Your task to perform on an android device: open app "Pandora - Music & Podcasts" Image 0: 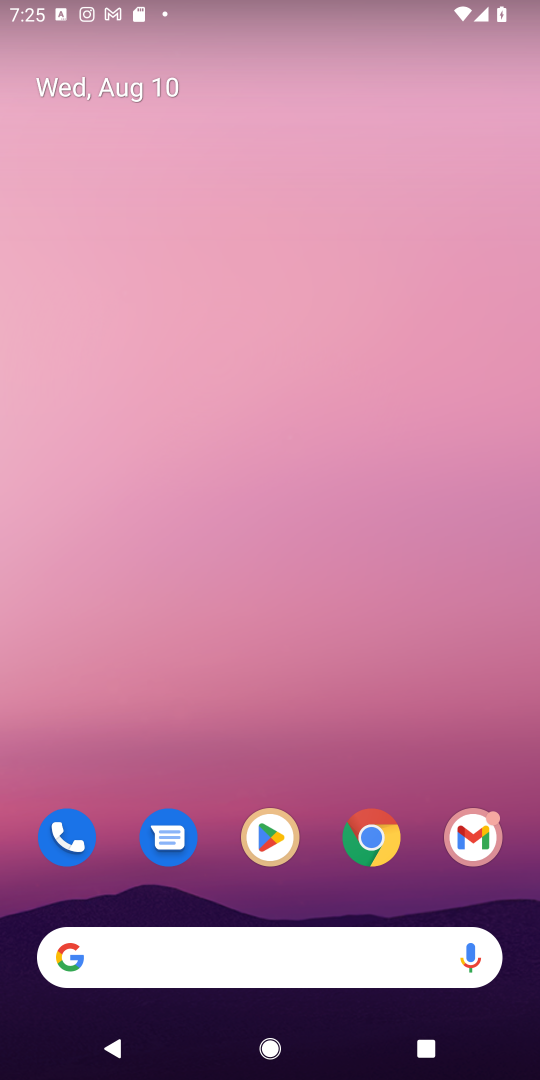
Step 0: click (265, 834)
Your task to perform on an android device: open app "Pandora - Music & Podcasts" Image 1: 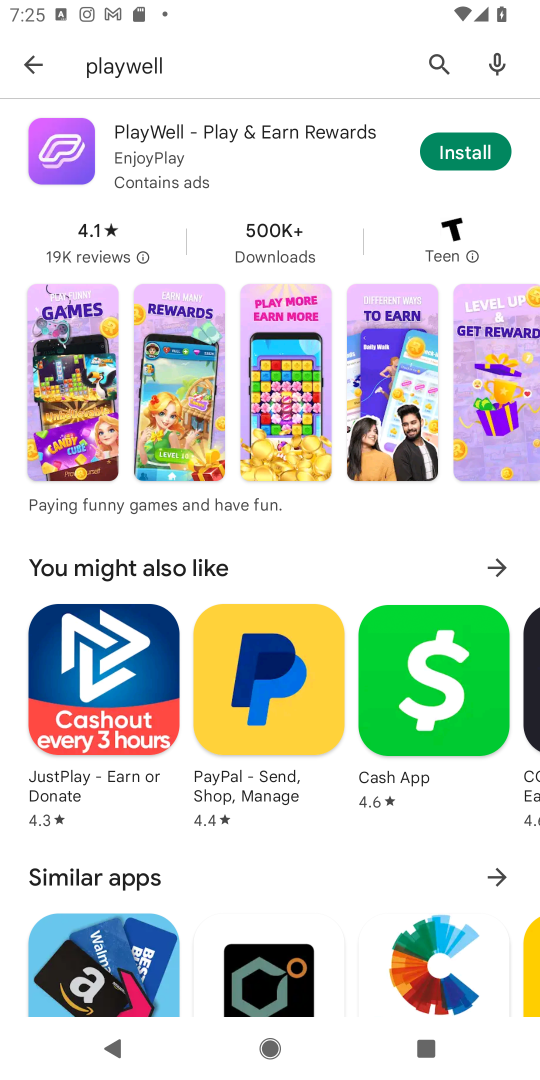
Step 1: click (432, 63)
Your task to perform on an android device: open app "Pandora - Music & Podcasts" Image 2: 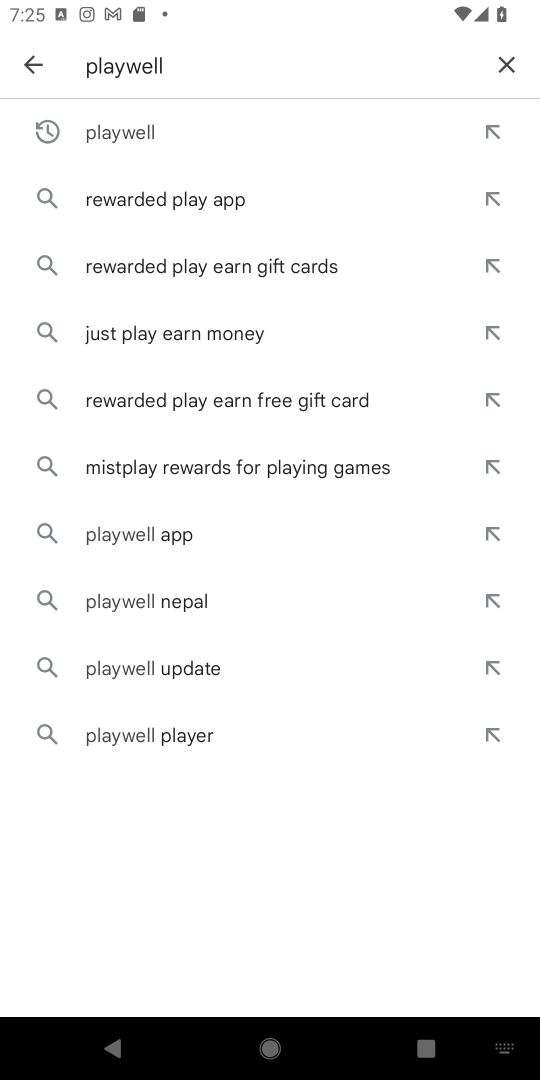
Step 2: click (505, 60)
Your task to perform on an android device: open app "Pandora - Music & Podcasts" Image 3: 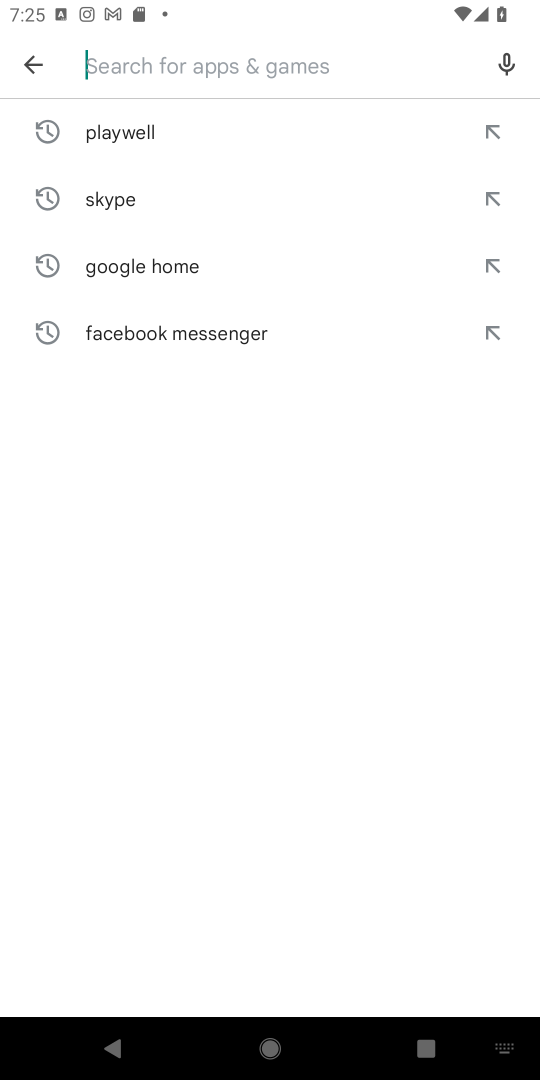
Step 3: type "Pandora - Music & Podcasts"
Your task to perform on an android device: open app "Pandora - Music & Podcasts" Image 4: 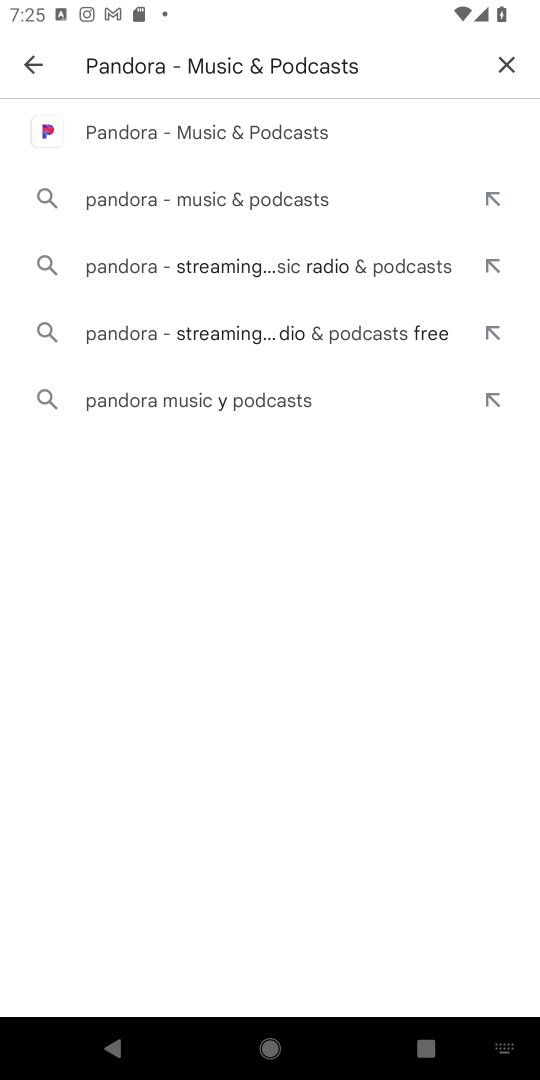
Step 4: click (232, 140)
Your task to perform on an android device: open app "Pandora - Music & Podcasts" Image 5: 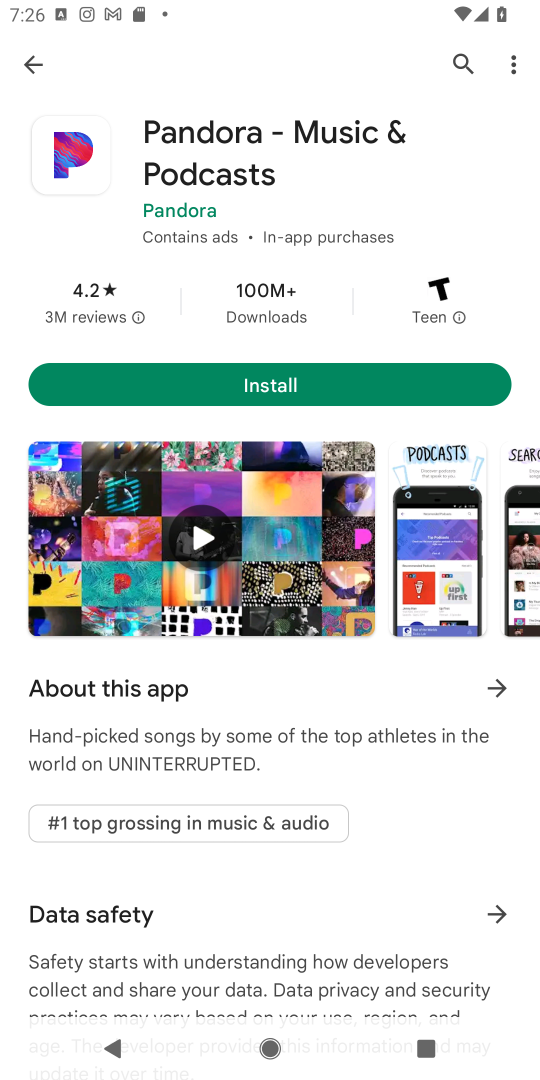
Step 5: task complete